Your task to perform on an android device: Open Android settings Image 0: 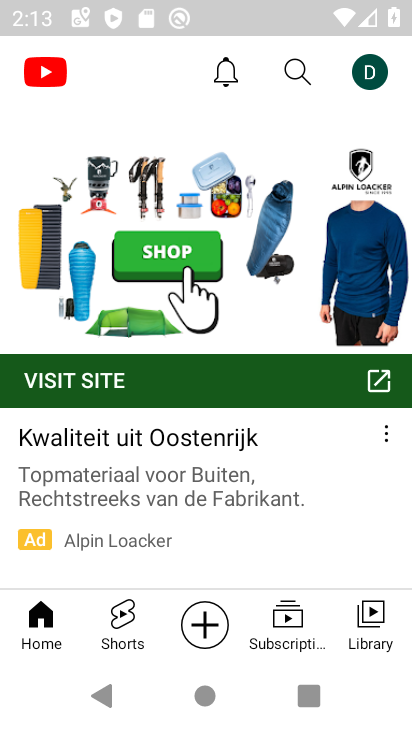
Step 0: press home button
Your task to perform on an android device: Open Android settings Image 1: 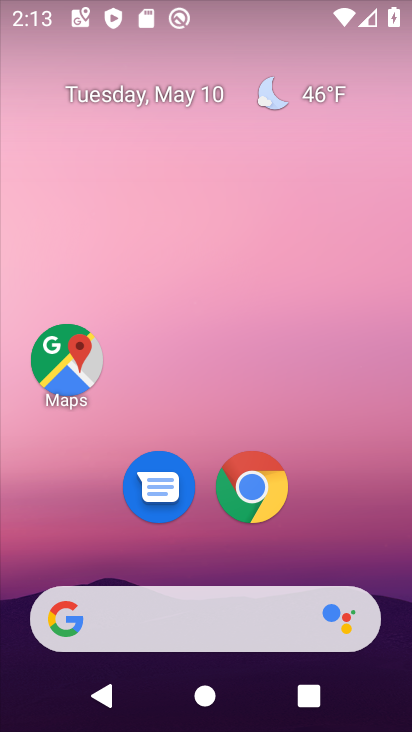
Step 1: drag from (323, 391) to (310, 117)
Your task to perform on an android device: Open Android settings Image 2: 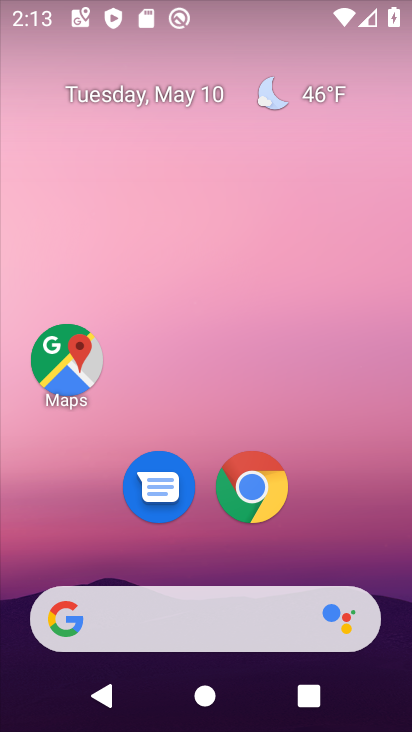
Step 2: drag from (322, 546) to (302, 129)
Your task to perform on an android device: Open Android settings Image 3: 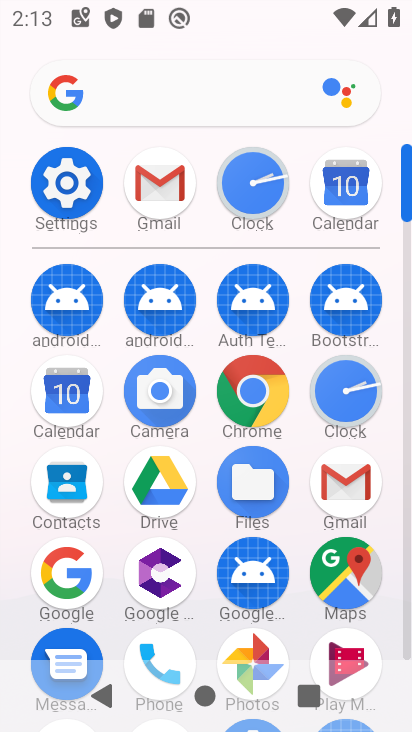
Step 3: drag from (297, 538) to (287, 591)
Your task to perform on an android device: Open Android settings Image 4: 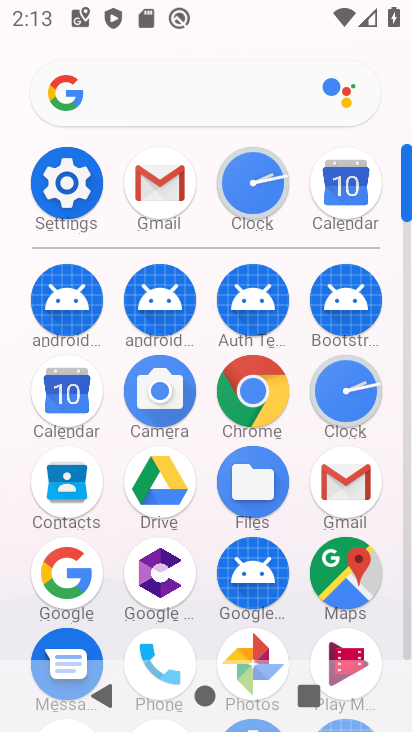
Step 4: click (62, 182)
Your task to perform on an android device: Open Android settings Image 5: 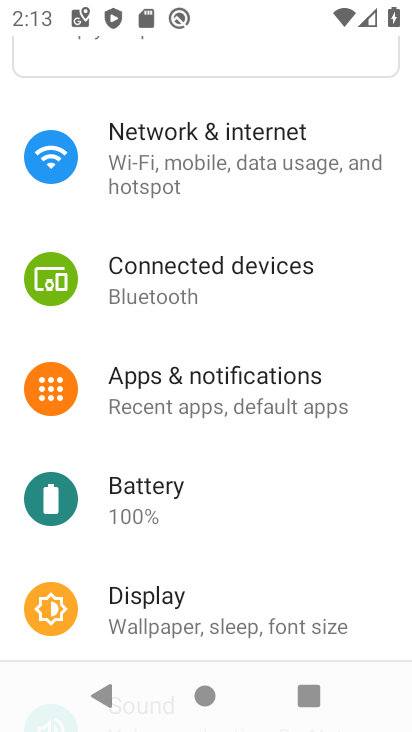
Step 5: task complete